Your task to perform on an android device: Show me productivity apps on the Play Store Image 0: 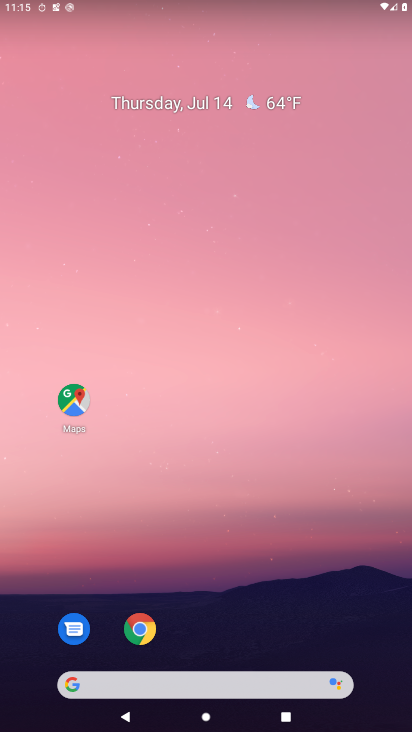
Step 0: drag from (163, 666) to (165, 385)
Your task to perform on an android device: Show me productivity apps on the Play Store Image 1: 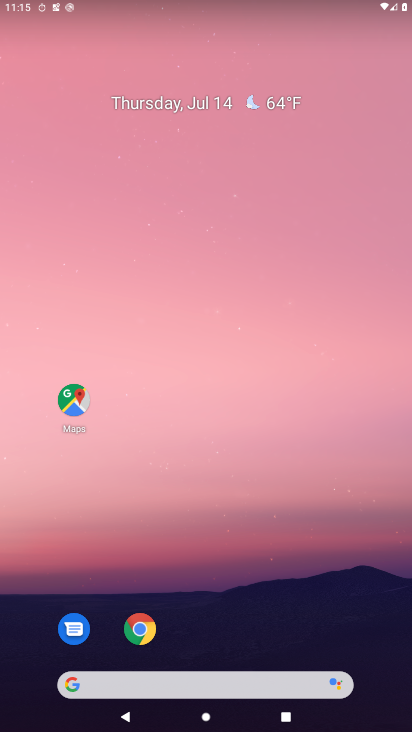
Step 1: drag from (227, 574) to (280, 170)
Your task to perform on an android device: Show me productivity apps on the Play Store Image 2: 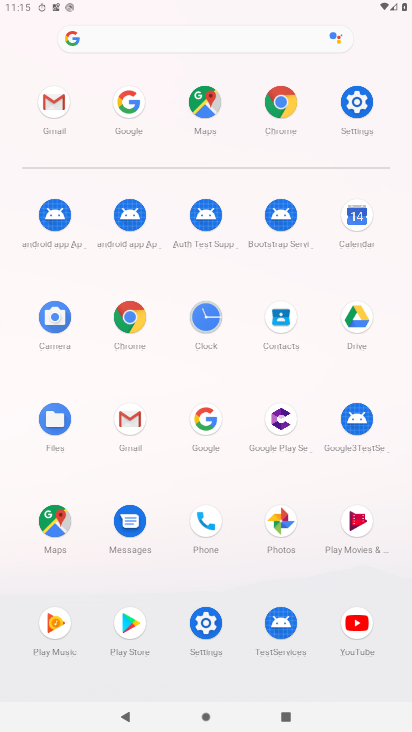
Step 2: click (131, 625)
Your task to perform on an android device: Show me productivity apps on the Play Store Image 3: 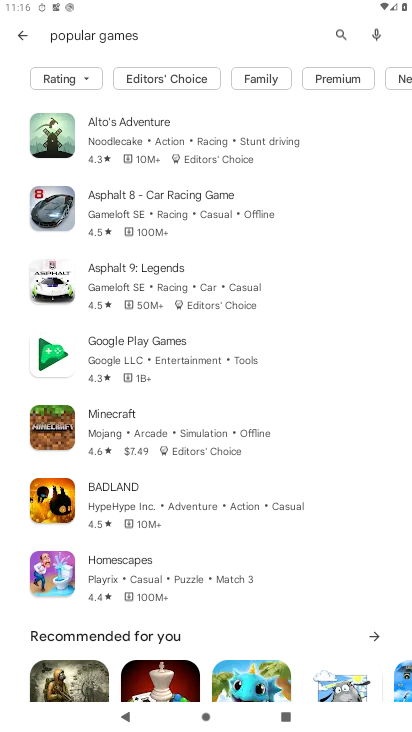
Step 3: click (22, 45)
Your task to perform on an android device: Show me productivity apps on the Play Store Image 4: 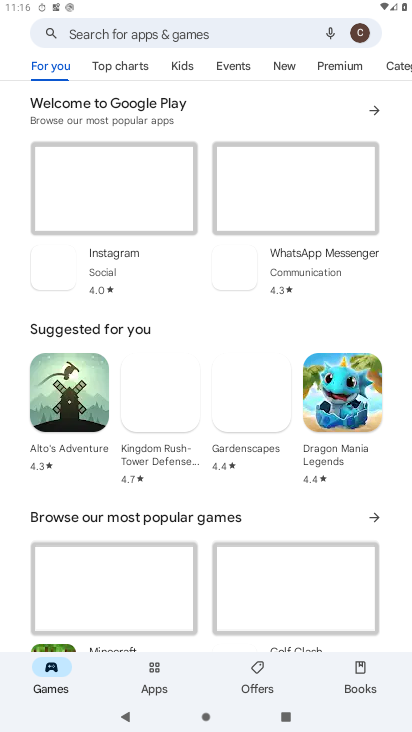
Step 4: click (152, 682)
Your task to perform on an android device: Show me productivity apps on the Play Store Image 5: 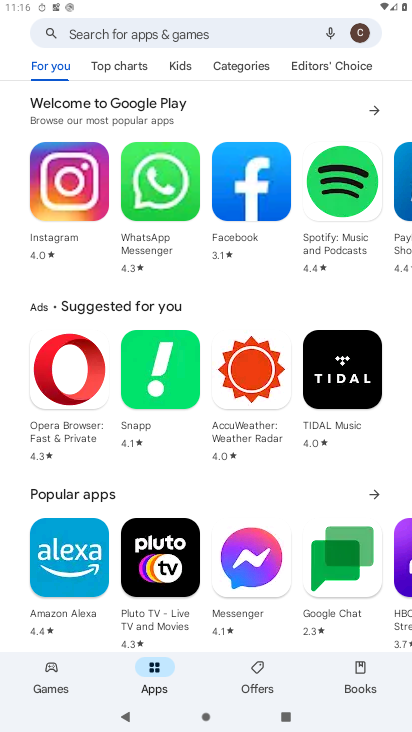
Step 5: task complete